Your task to perform on an android device: Open Chrome and go to the settings page Image 0: 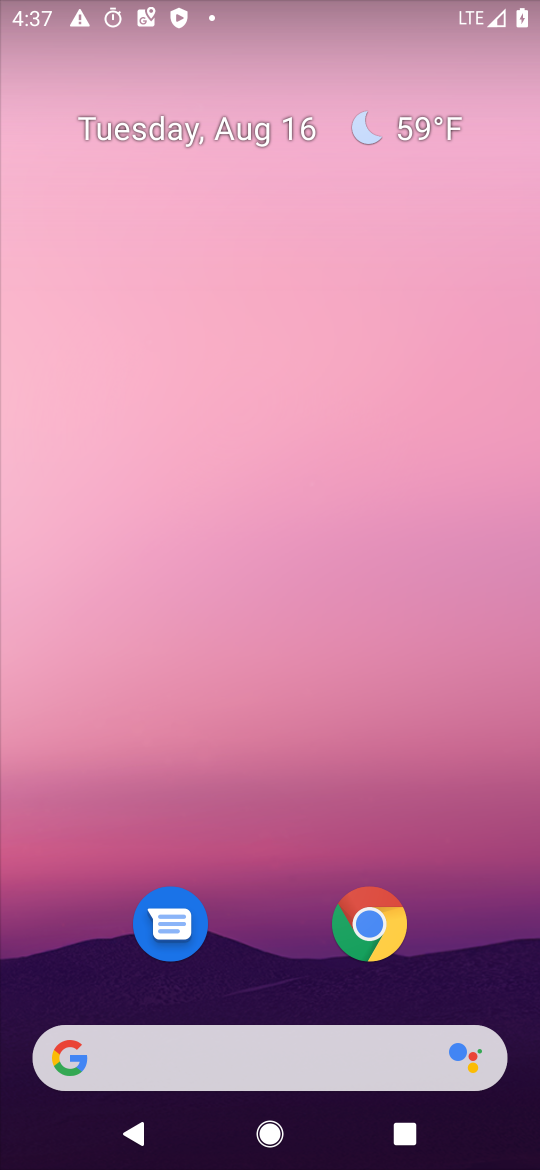
Step 0: click (389, 939)
Your task to perform on an android device: Open Chrome and go to the settings page Image 1: 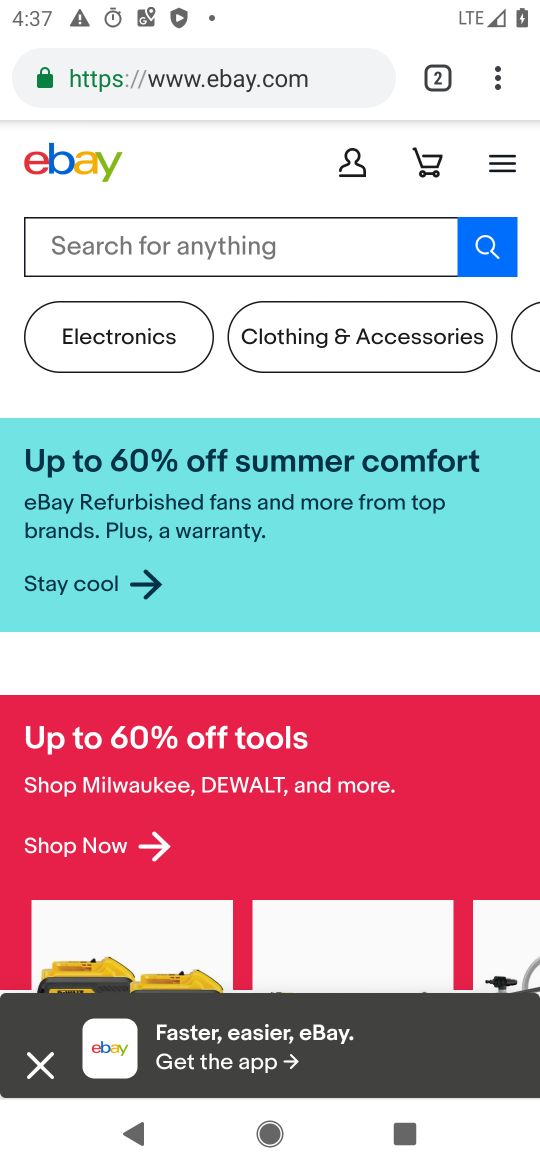
Step 1: click (496, 81)
Your task to perform on an android device: Open Chrome and go to the settings page Image 2: 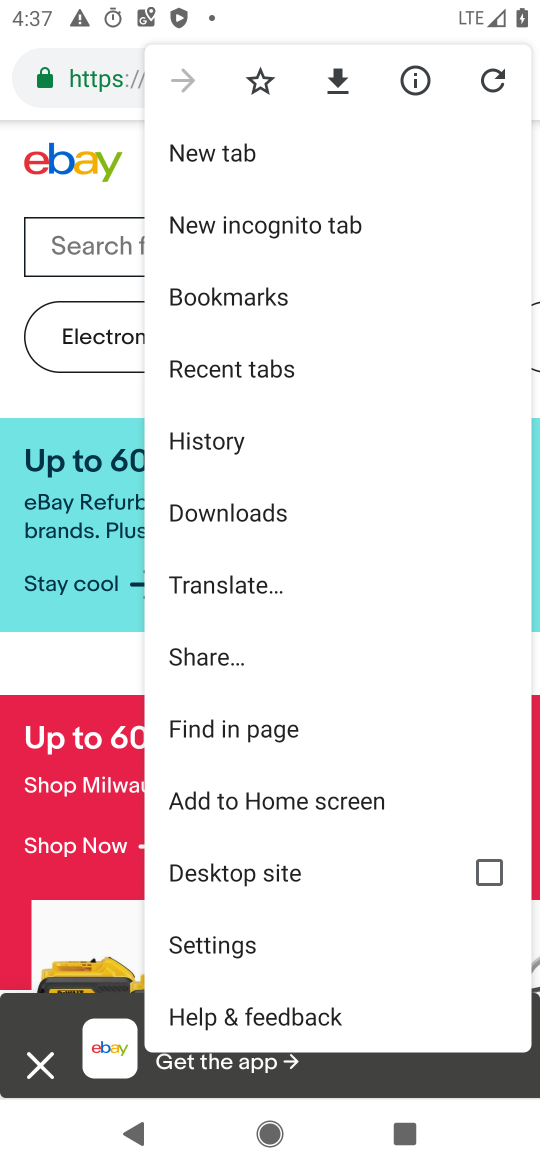
Step 2: click (268, 920)
Your task to perform on an android device: Open Chrome and go to the settings page Image 3: 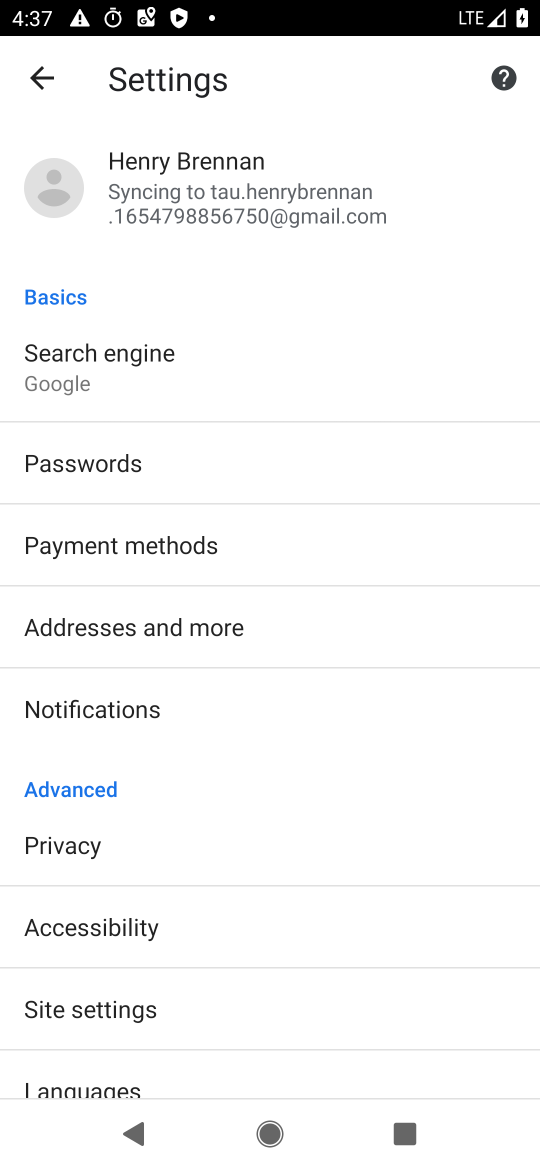
Step 3: task complete